Your task to perform on an android device: Set the phone to "Do not disturb". Image 0: 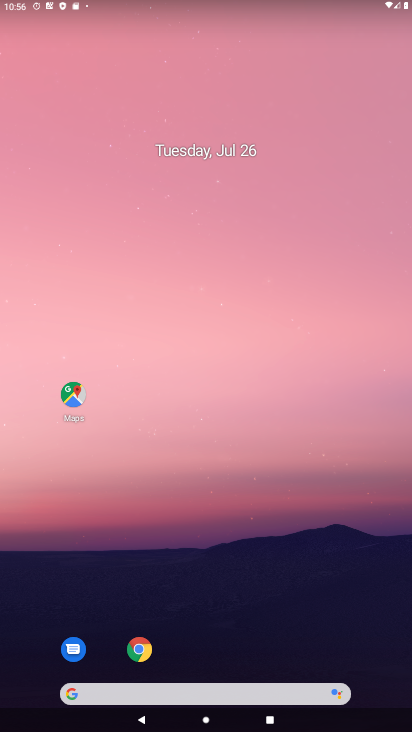
Step 0: drag from (143, 658) to (59, 39)
Your task to perform on an android device: Set the phone to "Do not disturb". Image 1: 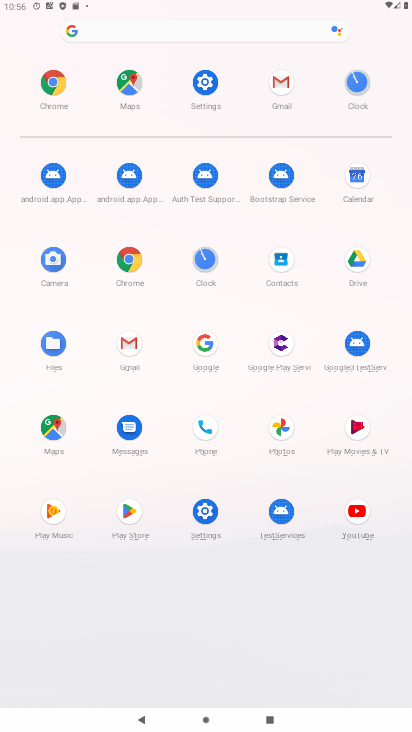
Step 1: click (203, 506)
Your task to perform on an android device: Set the phone to "Do not disturb". Image 2: 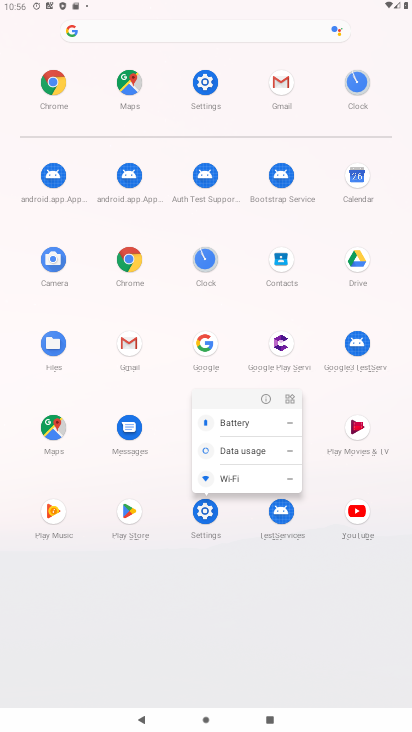
Step 2: click (270, 399)
Your task to perform on an android device: Set the phone to "Do not disturb". Image 3: 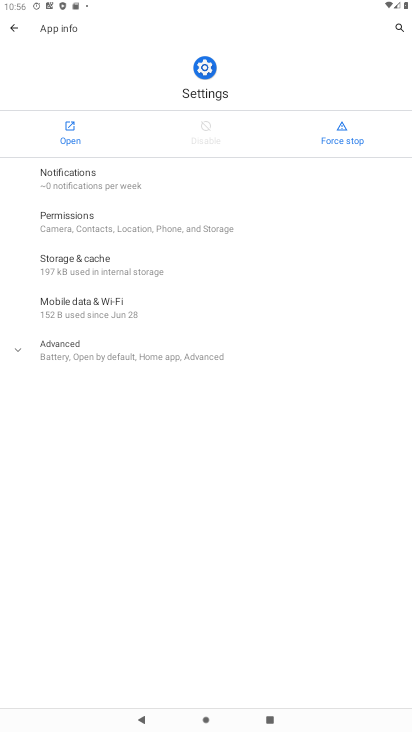
Step 3: click (65, 128)
Your task to perform on an android device: Set the phone to "Do not disturb". Image 4: 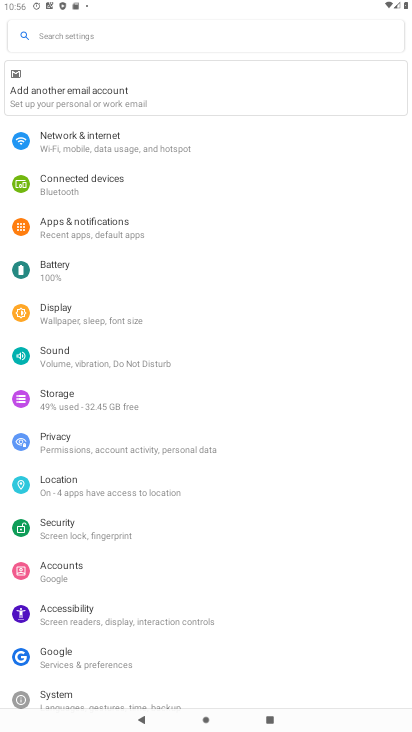
Step 4: click (140, 228)
Your task to perform on an android device: Set the phone to "Do not disturb". Image 5: 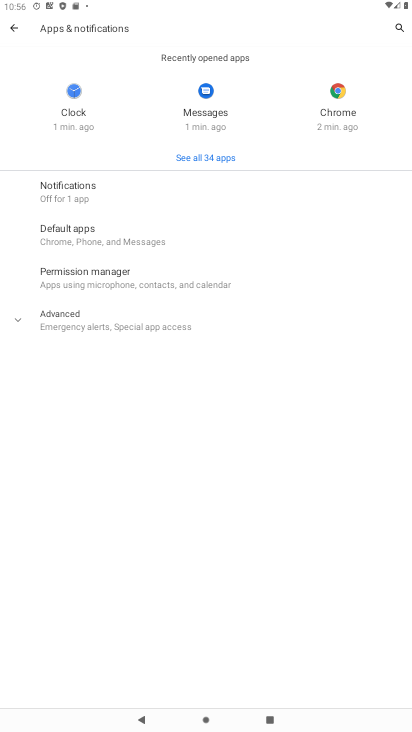
Step 5: click (116, 178)
Your task to perform on an android device: Set the phone to "Do not disturb". Image 6: 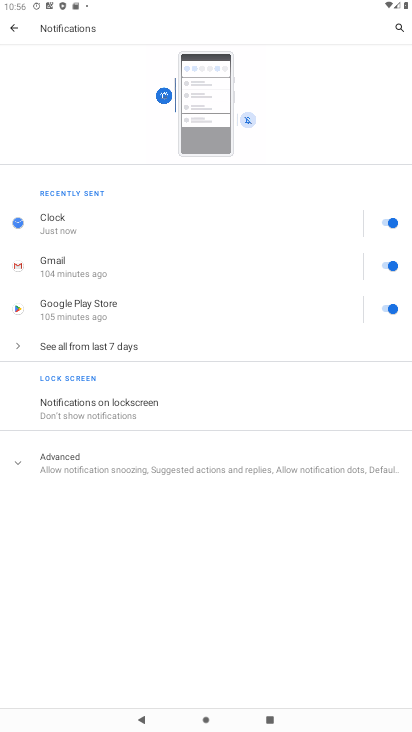
Step 6: click (108, 475)
Your task to perform on an android device: Set the phone to "Do not disturb". Image 7: 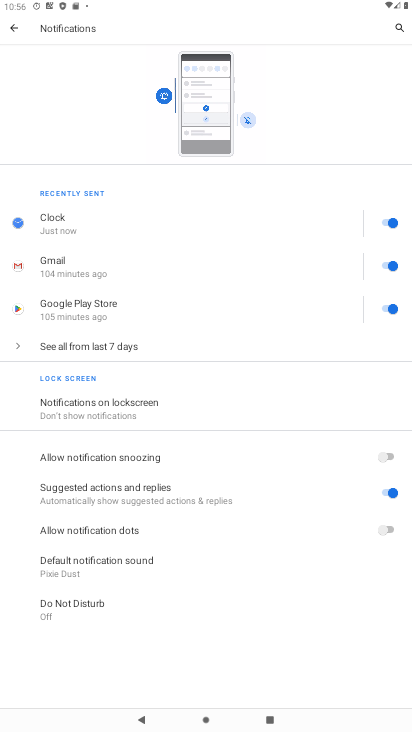
Step 7: click (56, 601)
Your task to perform on an android device: Set the phone to "Do not disturb". Image 8: 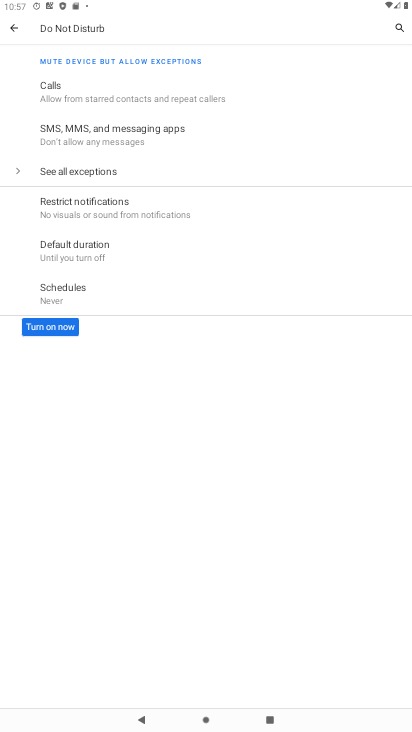
Step 8: click (55, 331)
Your task to perform on an android device: Set the phone to "Do not disturb". Image 9: 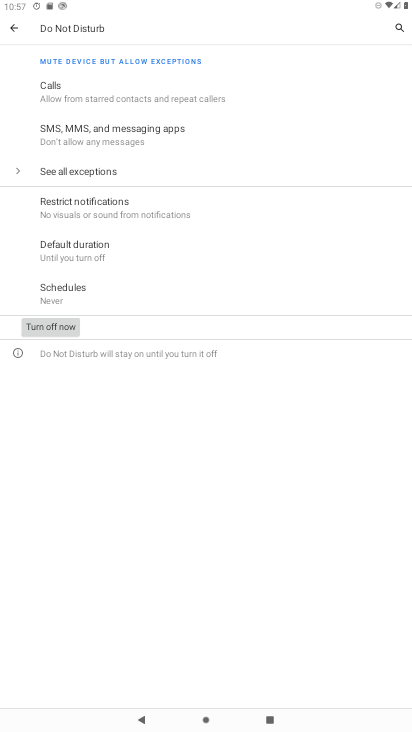
Step 9: task complete